Your task to perform on an android device: toggle notifications settings in the gmail app Image 0: 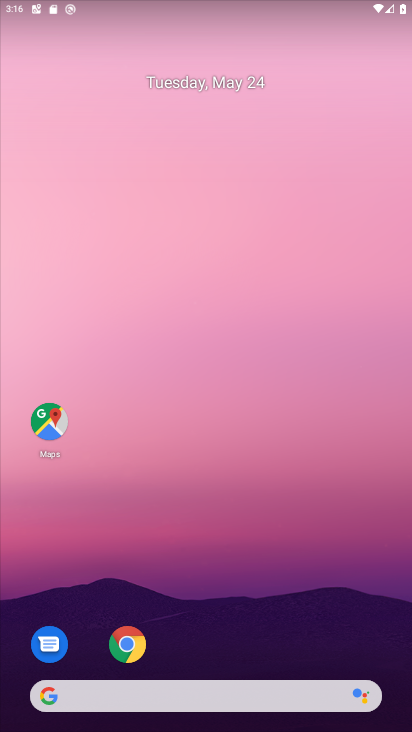
Step 0: drag from (314, 618) to (3, 307)
Your task to perform on an android device: toggle notifications settings in the gmail app Image 1: 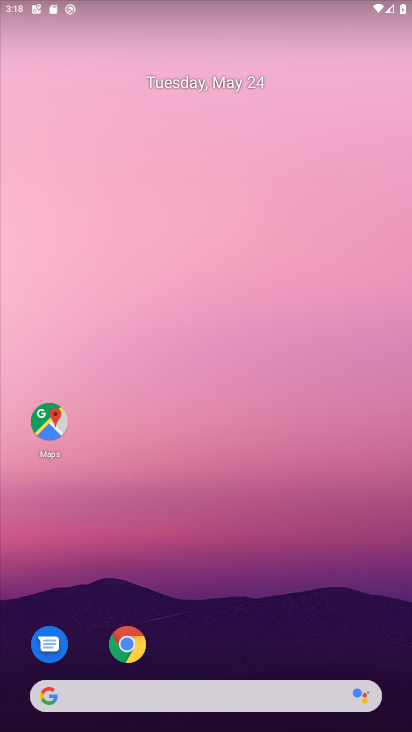
Step 1: drag from (319, 625) to (260, 38)
Your task to perform on an android device: toggle notifications settings in the gmail app Image 2: 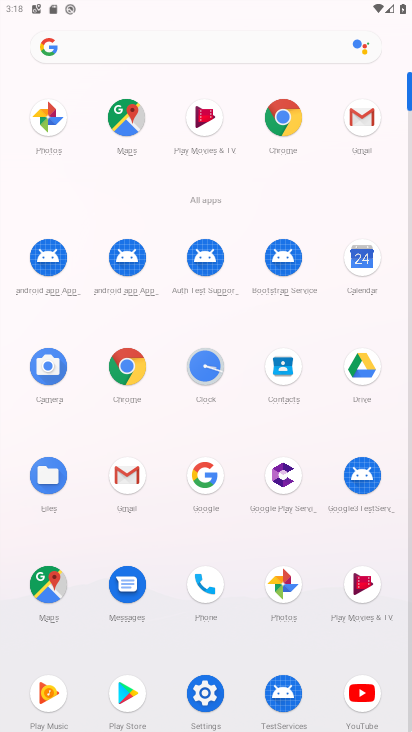
Step 2: click (361, 156)
Your task to perform on an android device: toggle notifications settings in the gmail app Image 3: 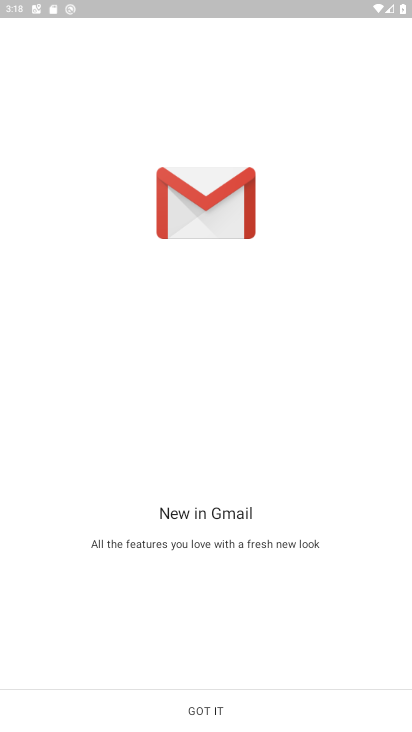
Step 3: click (261, 694)
Your task to perform on an android device: toggle notifications settings in the gmail app Image 4: 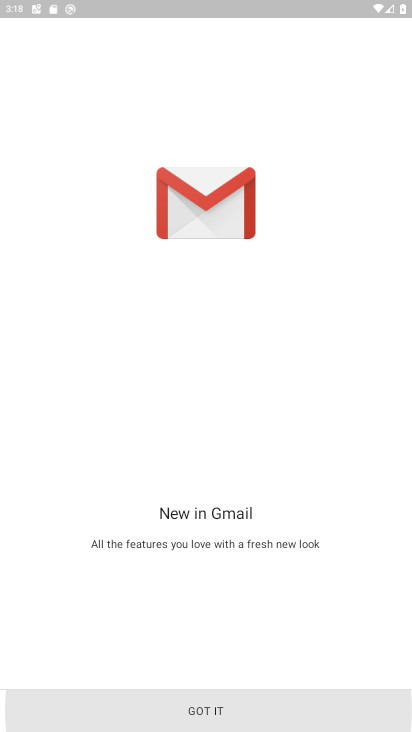
Step 4: click (261, 694)
Your task to perform on an android device: toggle notifications settings in the gmail app Image 5: 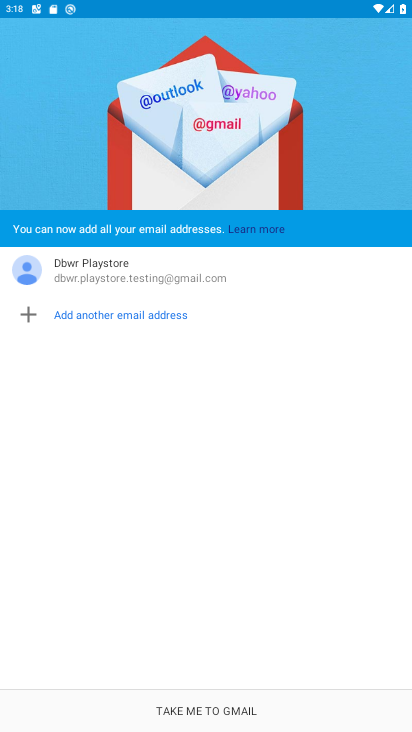
Step 5: click (261, 694)
Your task to perform on an android device: toggle notifications settings in the gmail app Image 6: 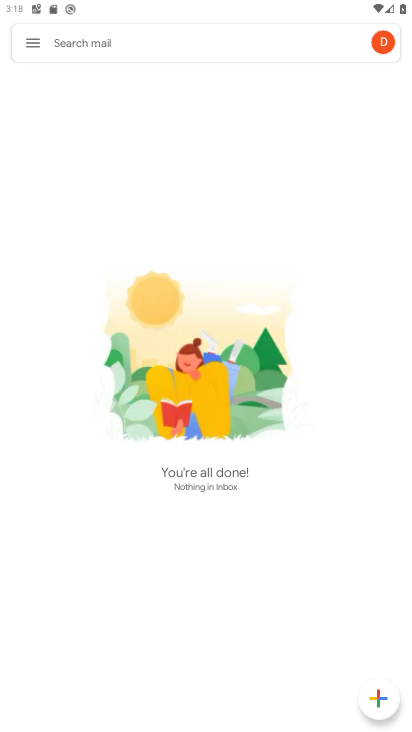
Step 6: click (18, 46)
Your task to perform on an android device: toggle notifications settings in the gmail app Image 7: 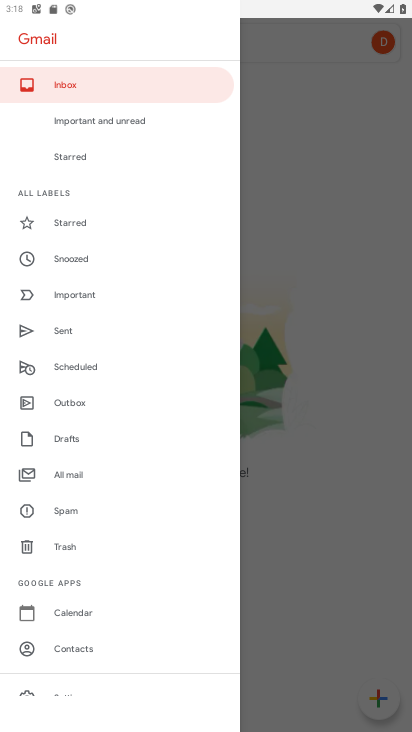
Step 7: drag from (100, 621) to (78, 307)
Your task to perform on an android device: toggle notifications settings in the gmail app Image 8: 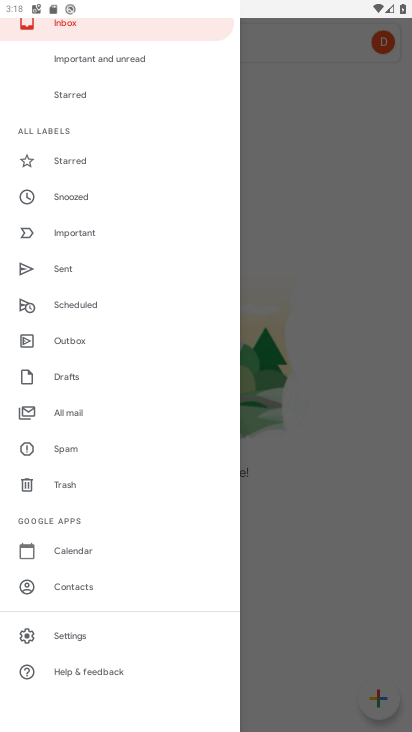
Step 8: click (125, 625)
Your task to perform on an android device: toggle notifications settings in the gmail app Image 9: 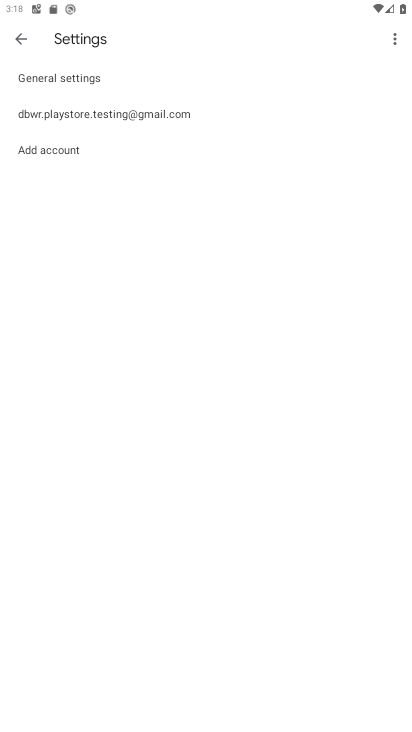
Step 9: click (47, 123)
Your task to perform on an android device: toggle notifications settings in the gmail app Image 10: 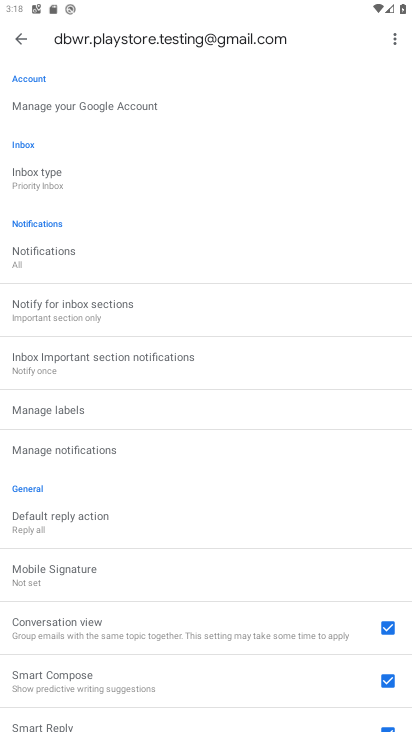
Step 10: click (92, 264)
Your task to perform on an android device: toggle notifications settings in the gmail app Image 11: 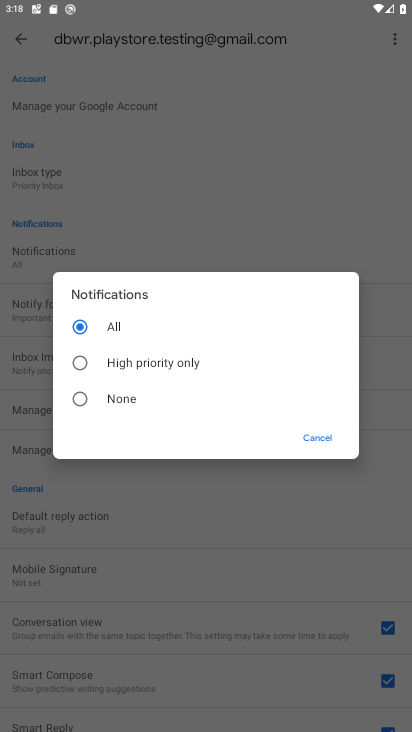
Step 11: click (185, 350)
Your task to perform on an android device: toggle notifications settings in the gmail app Image 12: 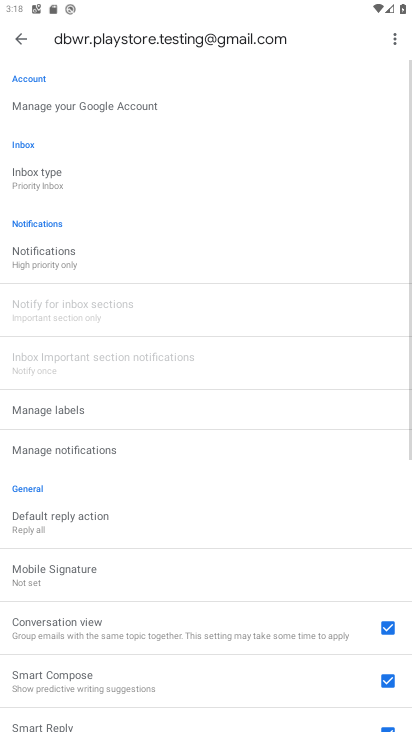
Step 12: task complete